Your task to perform on an android device: change text size in settings app Image 0: 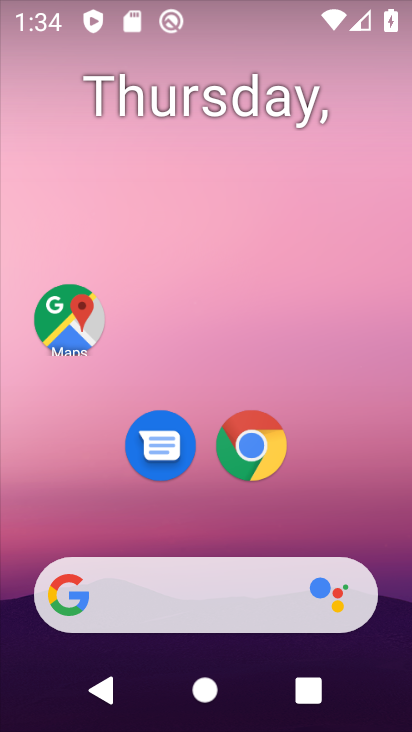
Step 0: press home button
Your task to perform on an android device: change text size in settings app Image 1: 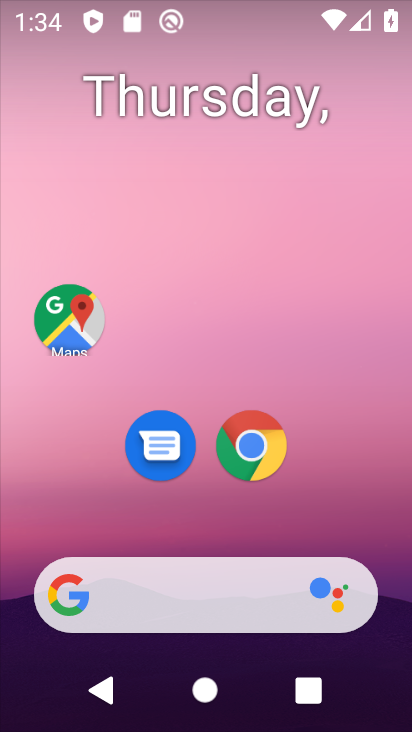
Step 1: drag from (8, 660) to (246, 139)
Your task to perform on an android device: change text size in settings app Image 2: 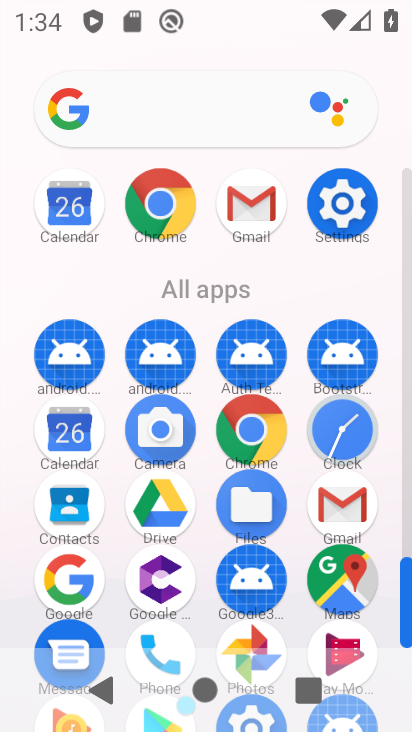
Step 2: click (347, 192)
Your task to perform on an android device: change text size in settings app Image 3: 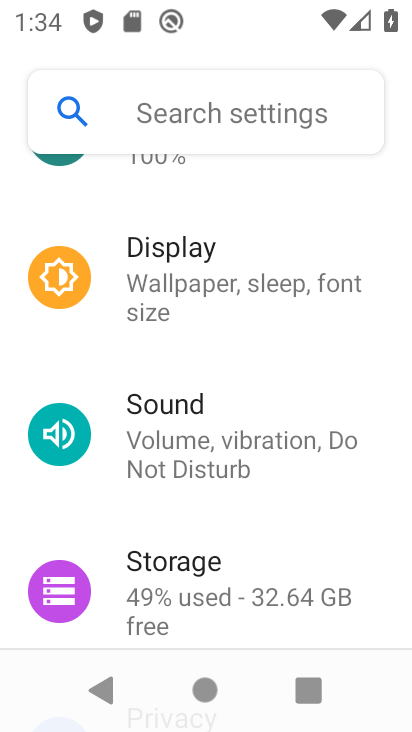
Step 3: click (199, 303)
Your task to perform on an android device: change text size in settings app Image 4: 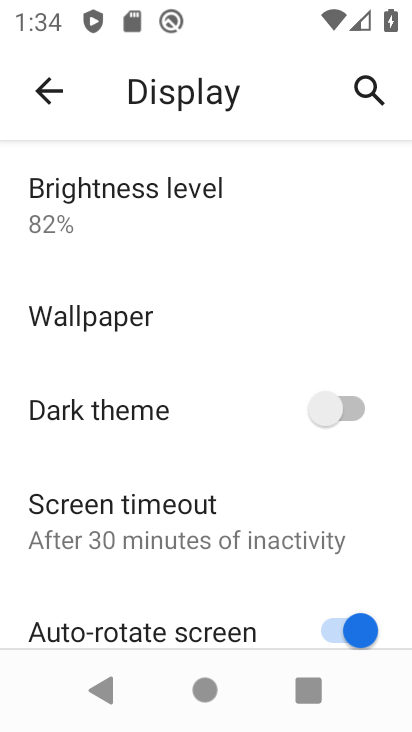
Step 4: drag from (13, 540) to (213, 148)
Your task to perform on an android device: change text size in settings app Image 5: 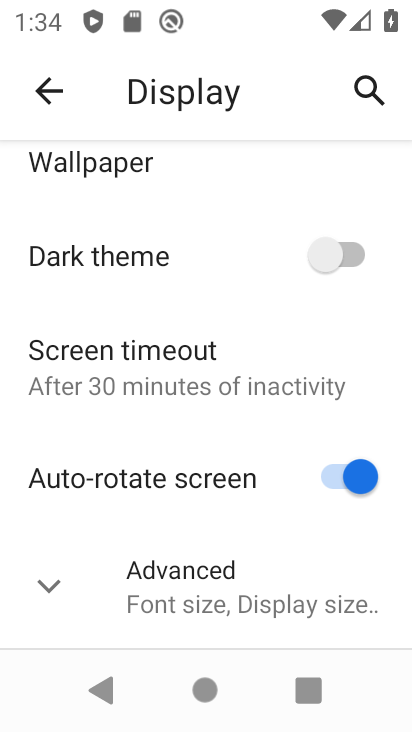
Step 5: click (215, 603)
Your task to perform on an android device: change text size in settings app Image 6: 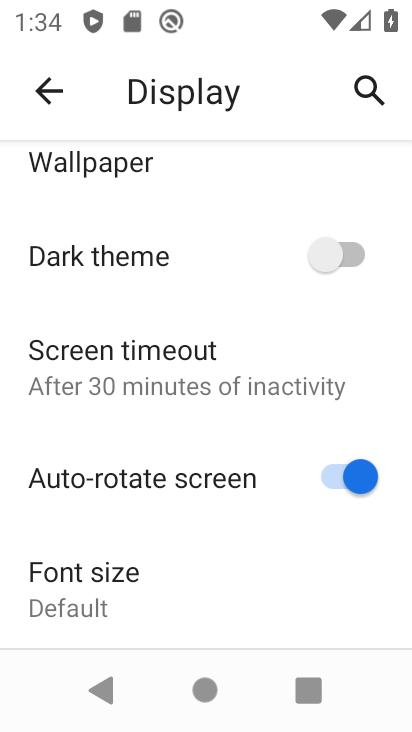
Step 6: click (79, 590)
Your task to perform on an android device: change text size in settings app Image 7: 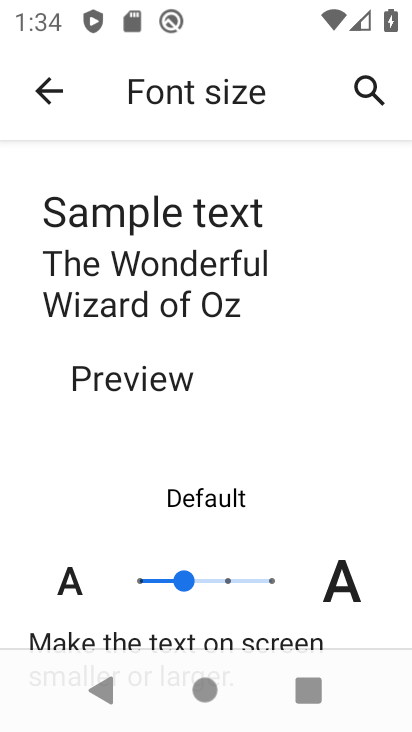
Step 7: click (221, 581)
Your task to perform on an android device: change text size in settings app Image 8: 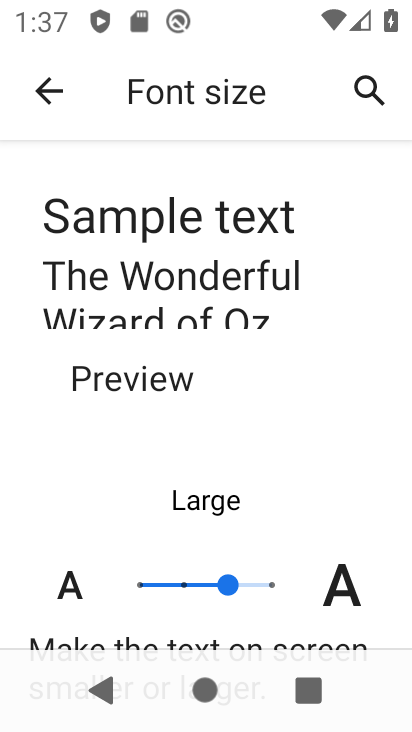
Step 8: task complete